Your task to perform on an android device: Open my contact list Image 0: 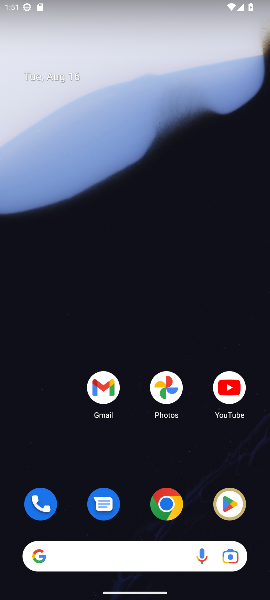
Step 0: drag from (141, 515) to (115, 45)
Your task to perform on an android device: Open my contact list Image 1: 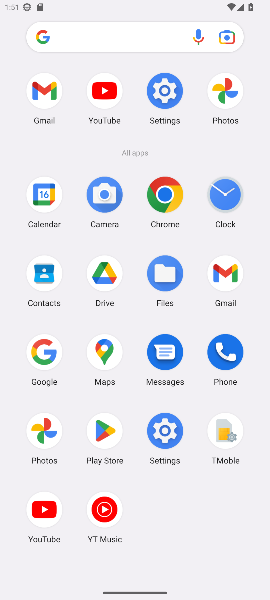
Step 1: click (48, 275)
Your task to perform on an android device: Open my contact list Image 2: 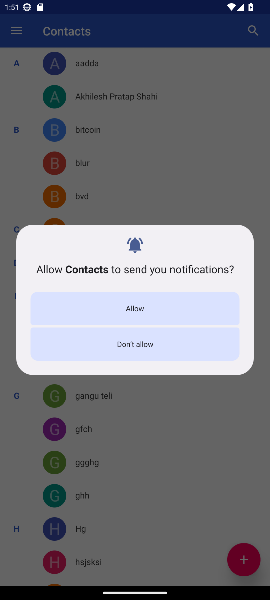
Step 2: click (140, 305)
Your task to perform on an android device: Open my contact list Image 3: 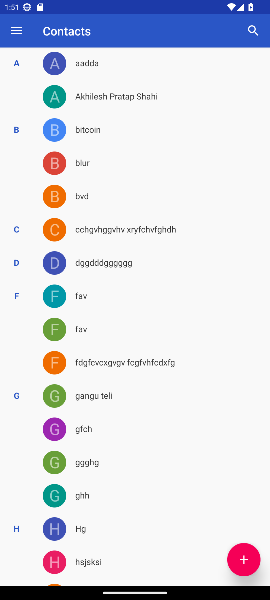
Step 3: task complete